Your task to perform on an android device: Go to Yahoo.com Image 0: 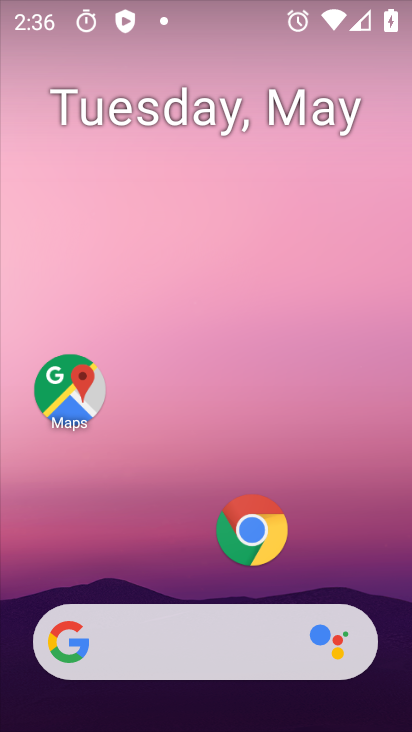
Step 0: drag from (190, 591) to (97, 1)
Your task to perform on an android device: Go to Yahoo.com Image 1: 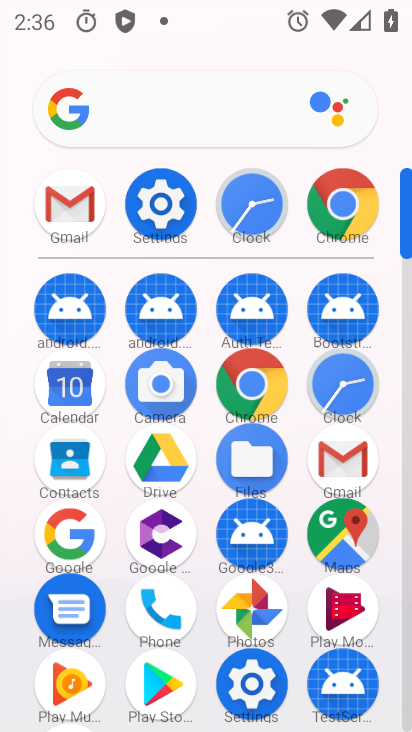
Step 1: click (344, 199)
Your task to perform on an android device: Go to Yahoo.com Image 2: 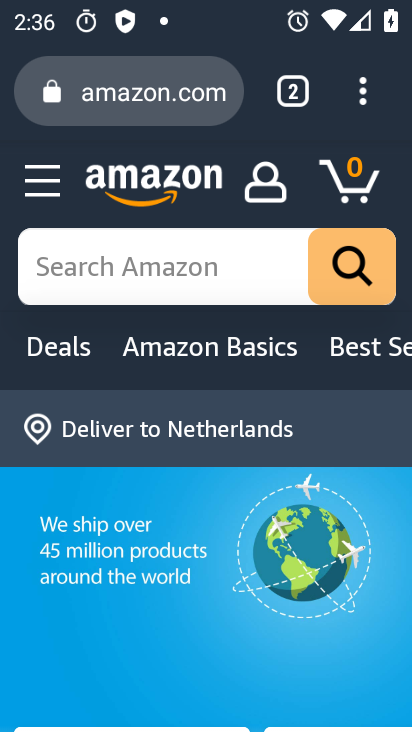
Step 2: click (301, 67)
Your task to perform on an android device: Go to Yahoo.com Image 3: 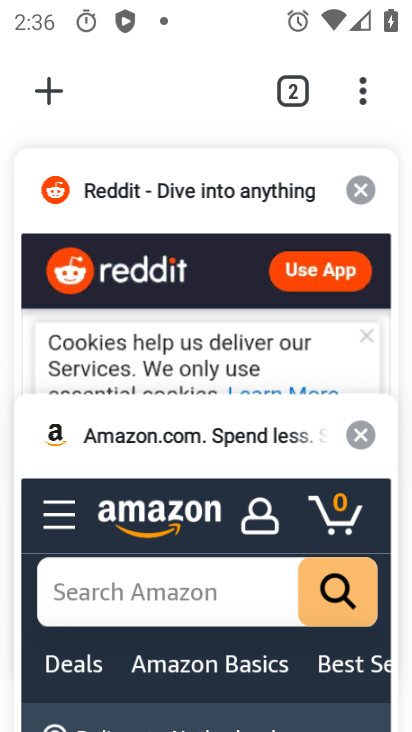
Step 3: click (28, 86)
Your task to perform on an android device: Go to Yahoo.com Image 4: 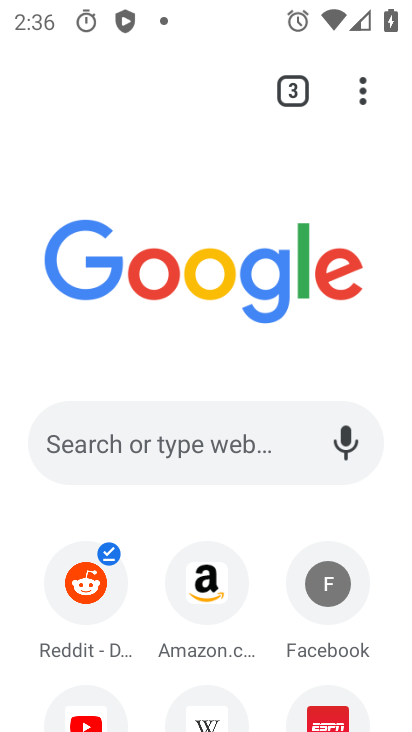
Step 4: drag from (170, 665) to (70, 158)
Your task to perform on an android device: Go to Yahoo.com Image 5: 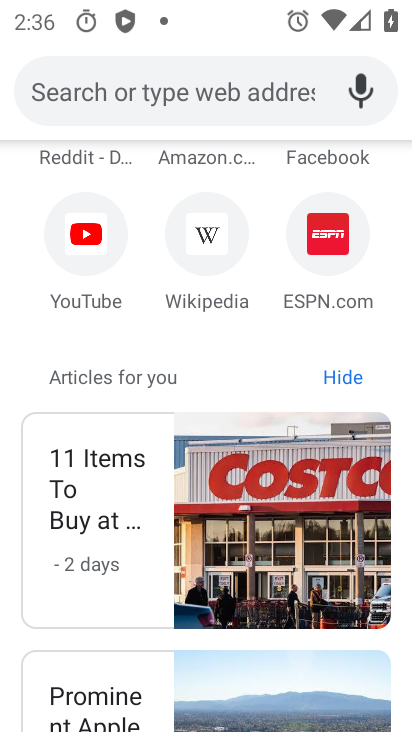
Step 5: drag from (158, 256) to (176, 590)
Your task to perform on an android device: Go to Yahoo.com Image 6: 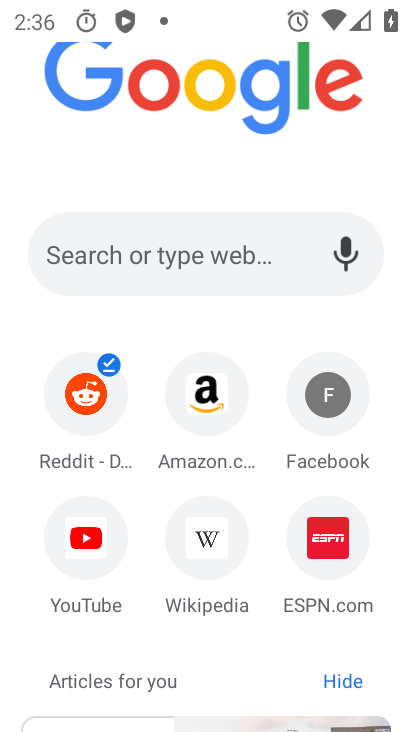
Step 6: click (146, 270)
Your task to perform on an android device: Go to Yahoo.com Image 7: 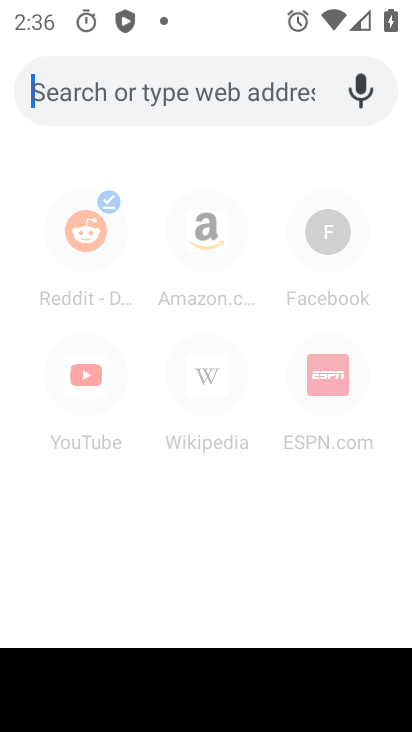
Step 7: type "yahoo"
Your task to perform on an android device: Go to Yahoo.com Image 8: 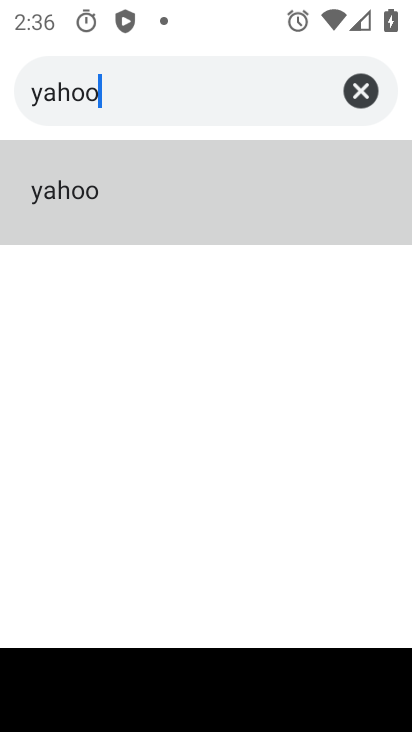
Step 8: type ""
Your task to perform on an android device: Go to Yahoo.com Image 9: 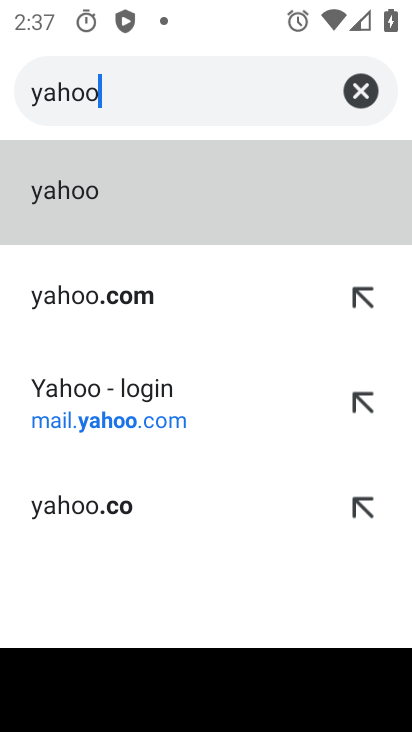
Step 9: click (133, 383)
Your task to perform on an android device: Go to Yahoo.com Image 10: 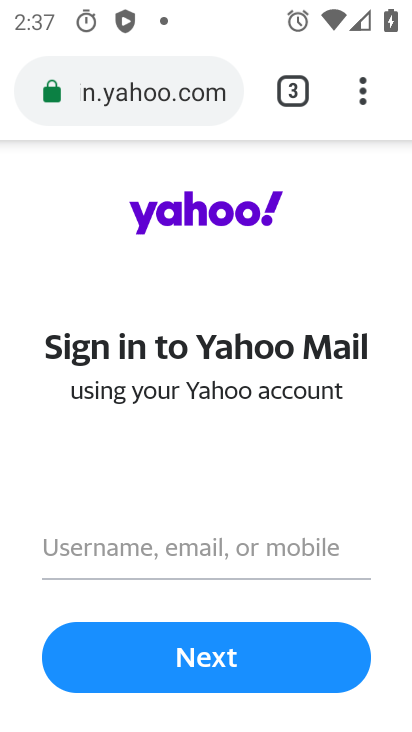
Step 10: task complete